Your task to perform on an android device: set the timer Image 0: 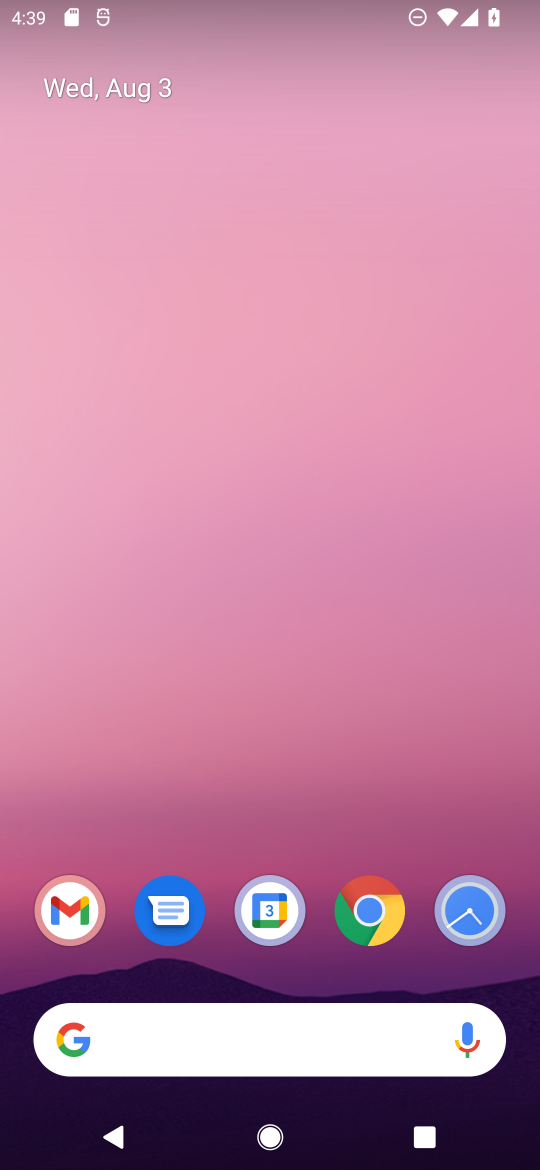
Step 0: drag from (94, 1097) to (424, 25)
Your task to perform on an android device: set the timer Image 1: 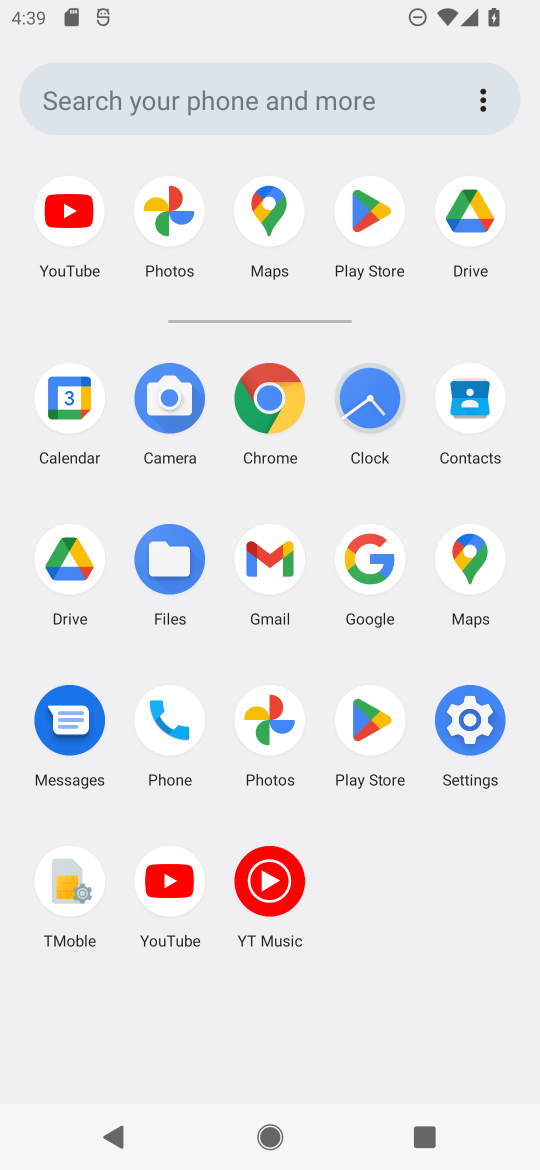
Step 1: click (393, 404)
Your task to perform on an android device: set the timer Image 2: 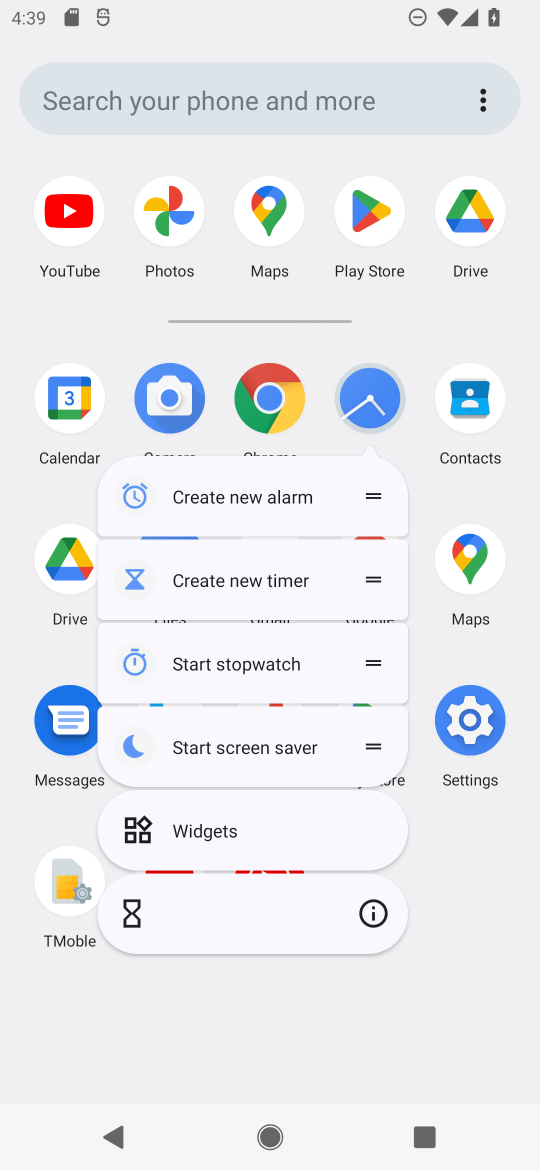
Step 2: click (375, 402)
Your task to perform on an android device: set the timer Image 3: 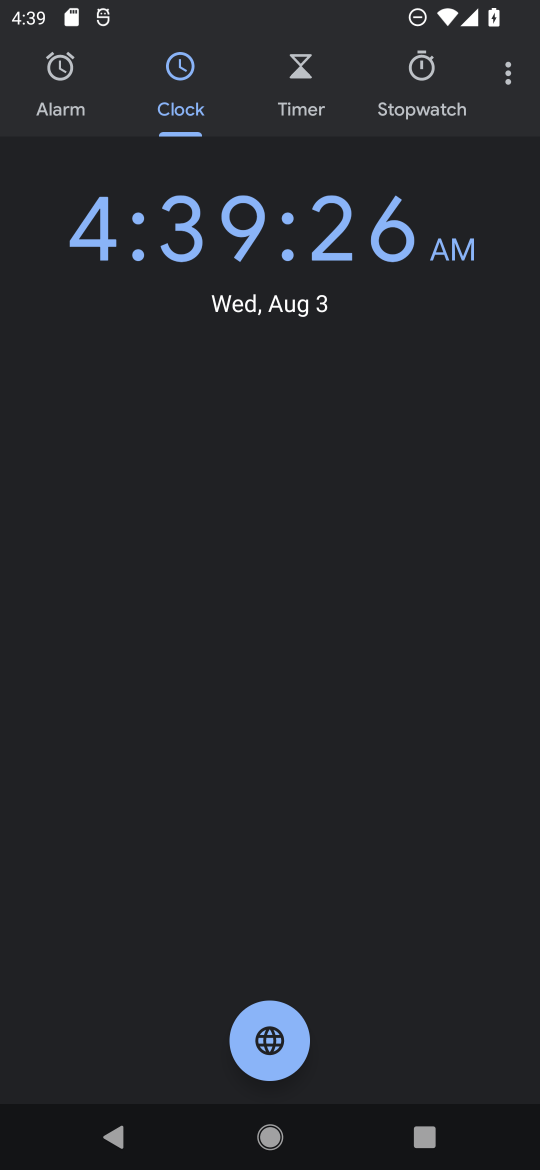
Step 3: click (300, 81)
Your task to perform on an android device: set the timer Image 4: 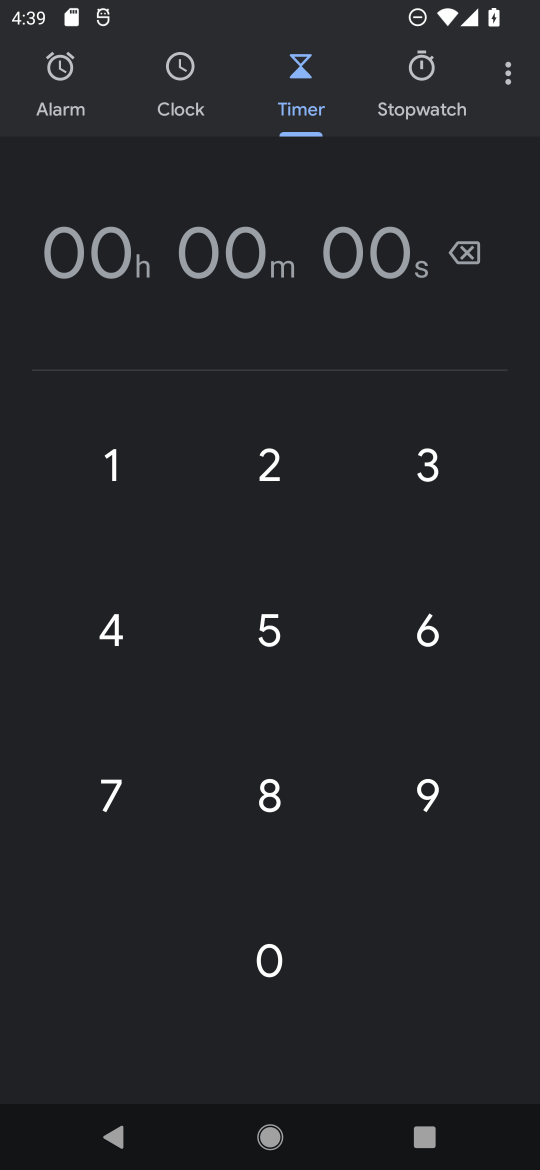
Step 4: click (257, 601)
Your task to perform on an android device: set the timer Image 5: 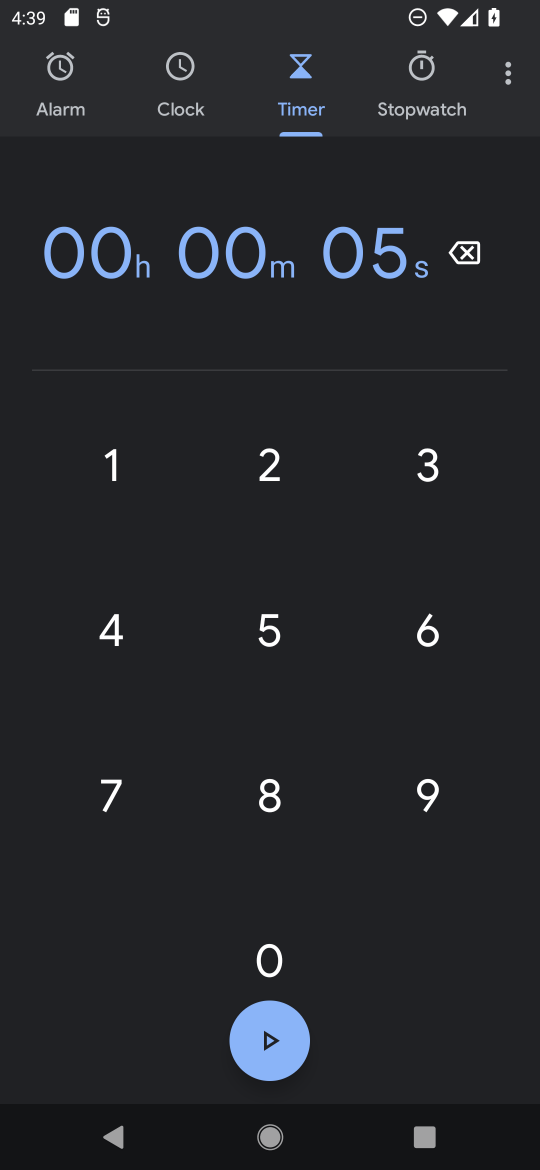
Step 5: click (152, 632)
Your task to perform on an android device: set the timer Image 6: 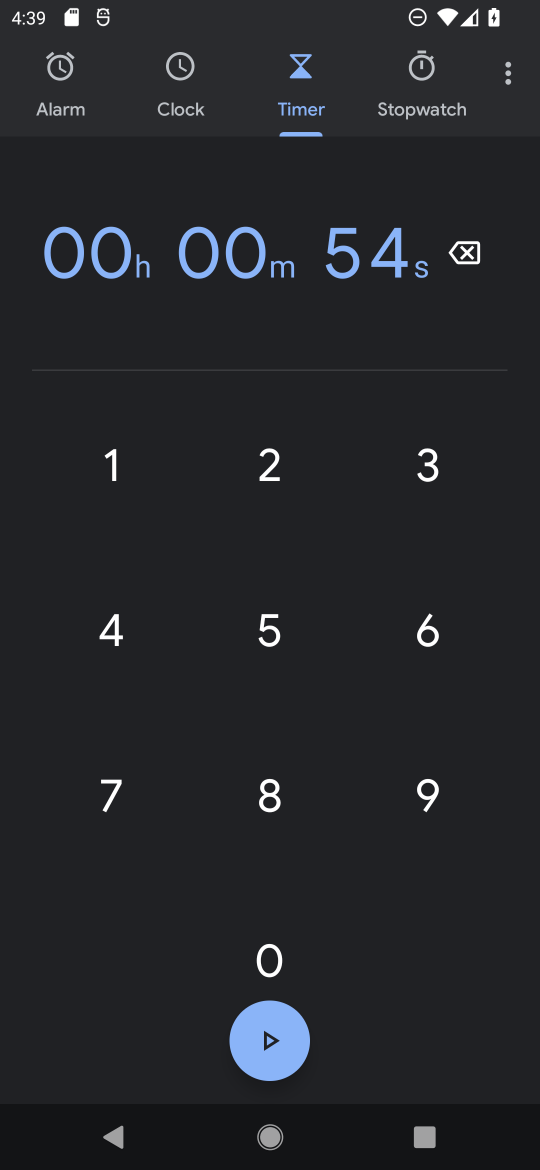
Step 6: task complete